Your task to perform on an android device: open chrome and create a bookmark for the current page Image 0: 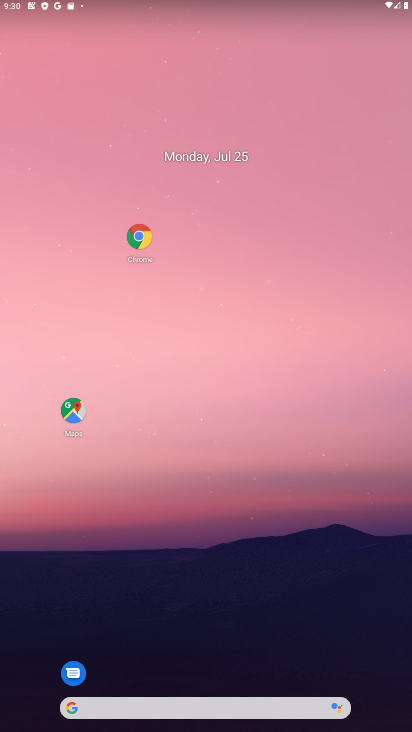
Step 0: task complete